Your task to perform on an android device: turn on airplane mode Image 0: 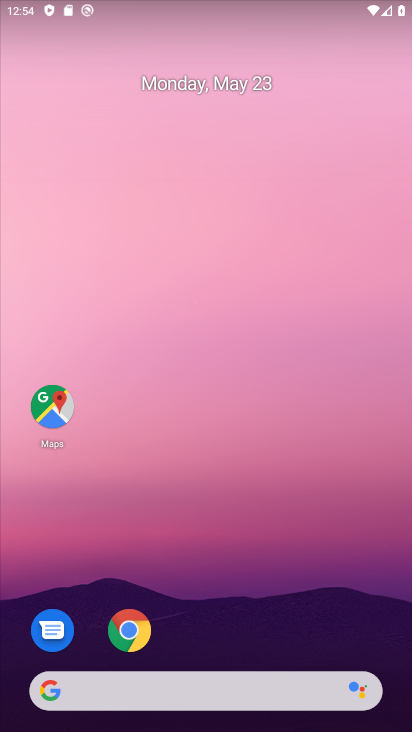
Step 0: drag from (300, 620) to (324, 287)
Your task to perform on an android device: turn on airplane mode Image 1: 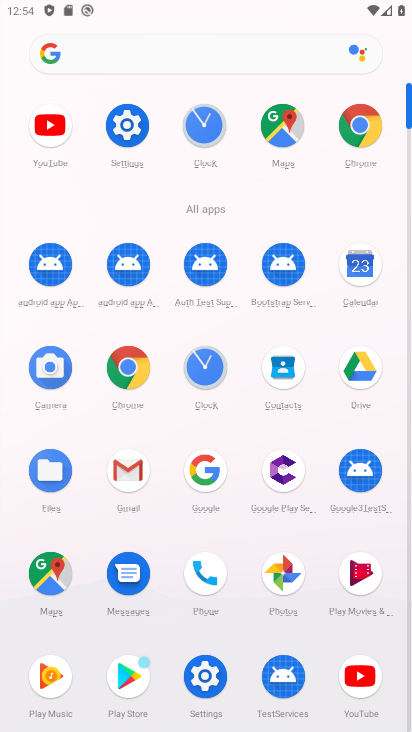
Step 1: click (128, 121)
Your task to perform on an android device: turn on airplane mode Image 2: 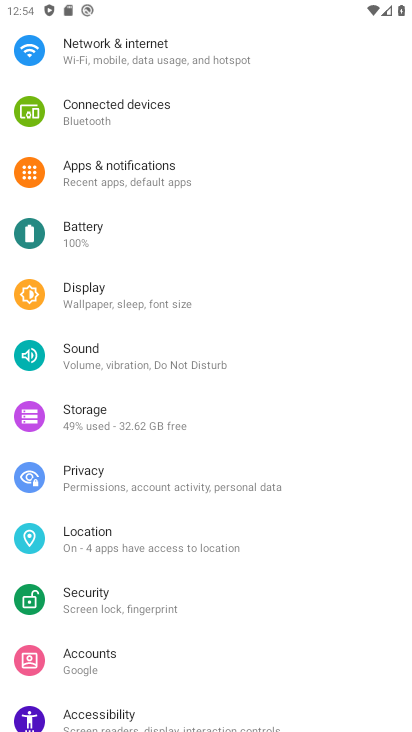
Step 2: drag from (147, 232) to (131, 491)
Your task to perform on an android device: turn on airplane mode Image 3: 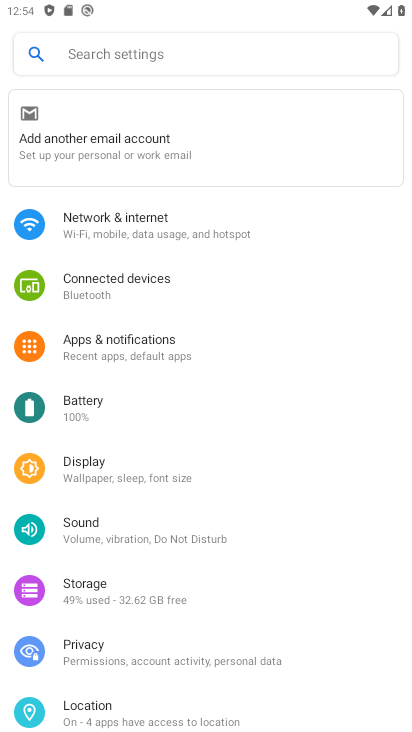
Step 3: click (128, 215)
Your task to perform on an android device: turn on airplane mode Image 4: 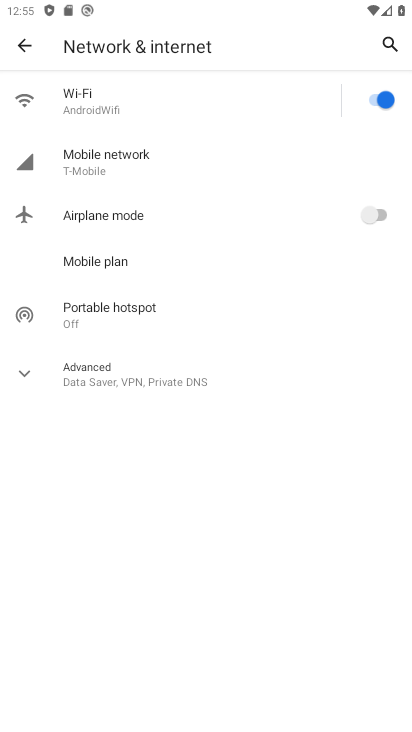
Step 4: click (387, 217)
Your task to perform on an android device: turn on airplane mode Image 5: 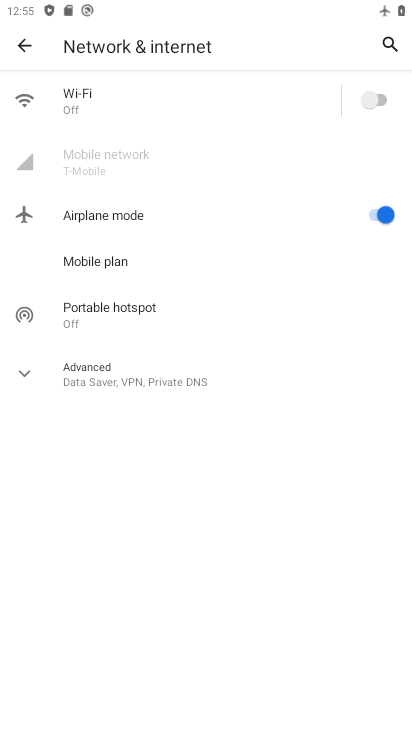
Step 5: task complete